Your task to perform on an android device: Open Amazon Image 0: 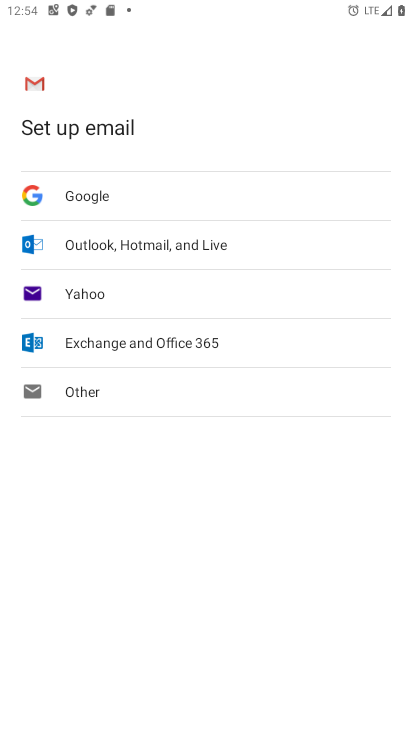
Step 0: drag from (256, 669) to (322, 388)
Your task to perform on an android device: Open Amazon Image 1: 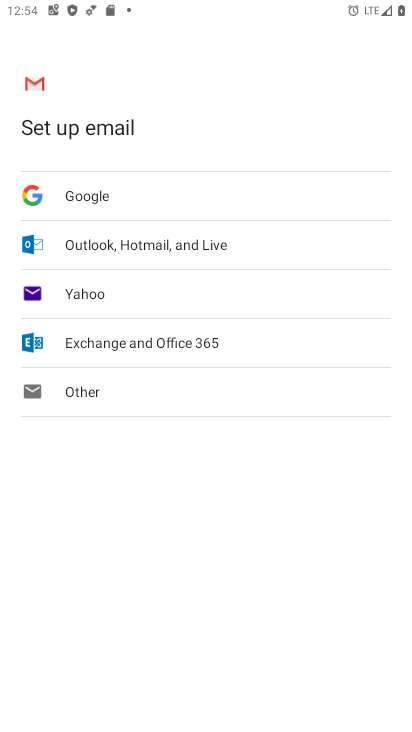
Step 1: press home button
Your task to perform on an android device: Open Amazon Image 2: 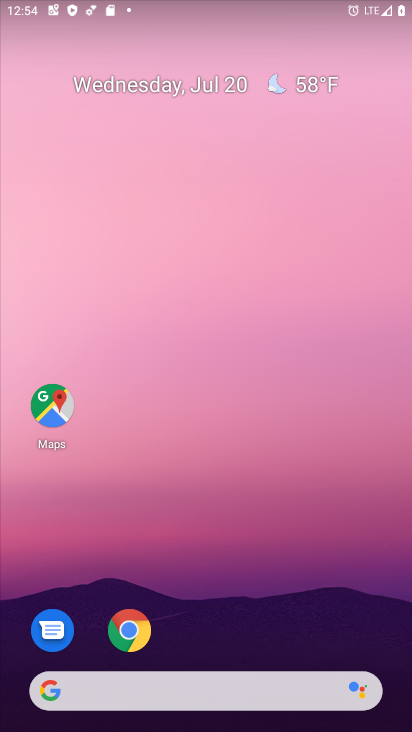
Step 2: drag from (260, 656) to (285, 271)
Your task to perform on an android device: Open Amazon Image 3: 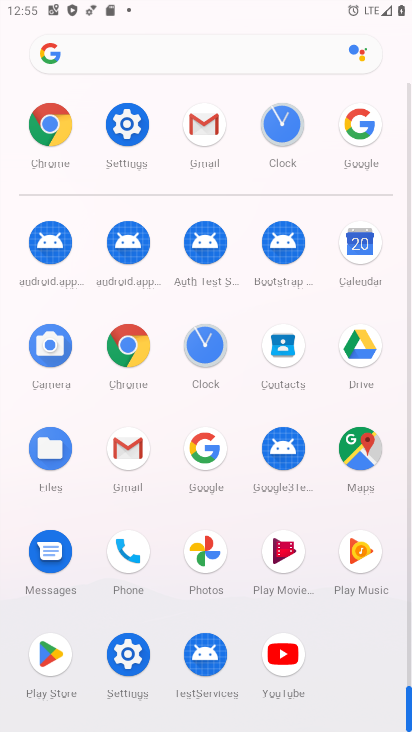
Step 3: click (130, 342)
Your task to perform on an android device: Open Amazon Image 4: 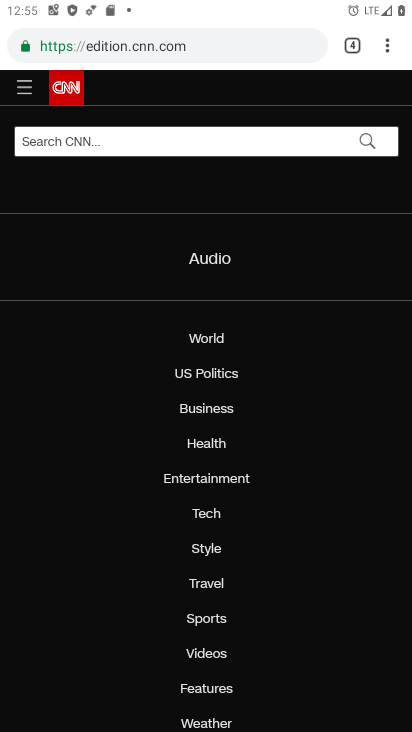
Step 4: drag from (352, 51) to (331, 181)
Your task to perform on an android device: Open Amazon Image 5: 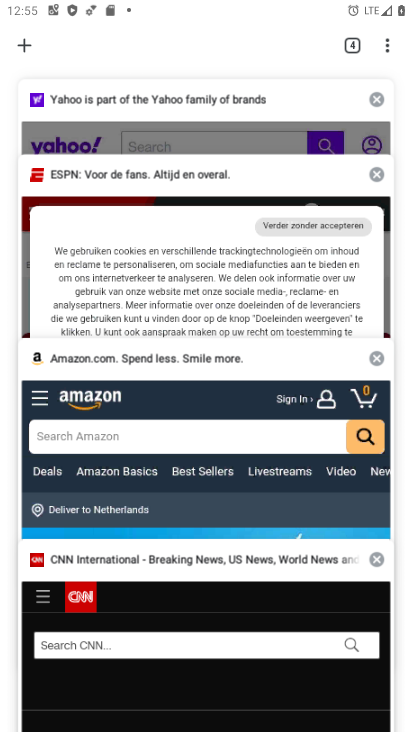
Step 5: click (20, 42)
Your task to perform on an android device: Open Amazon Image 6: 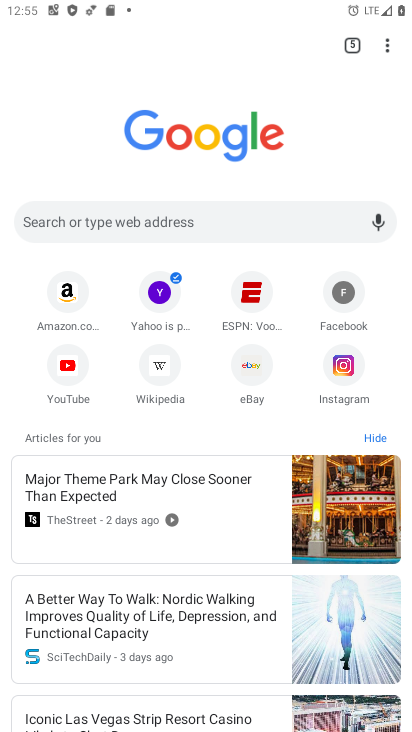
Step 6: click (74, 298)
Your task to perform on an android device: Open Amazon Image 7: 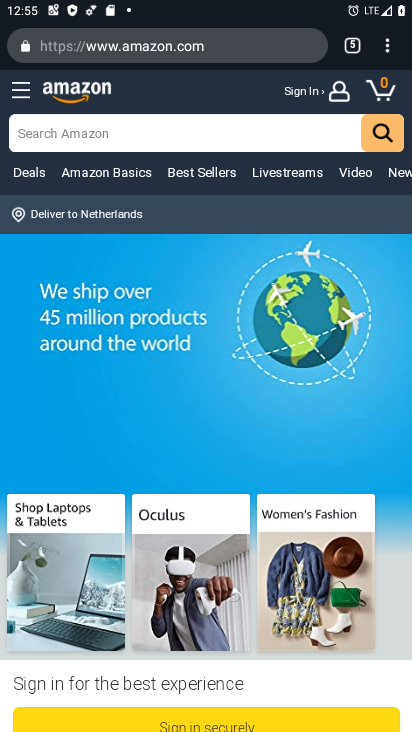
Step 7: task complete